Your task to perform on an android device: turn on priority inbox in the gmail app Image 0: 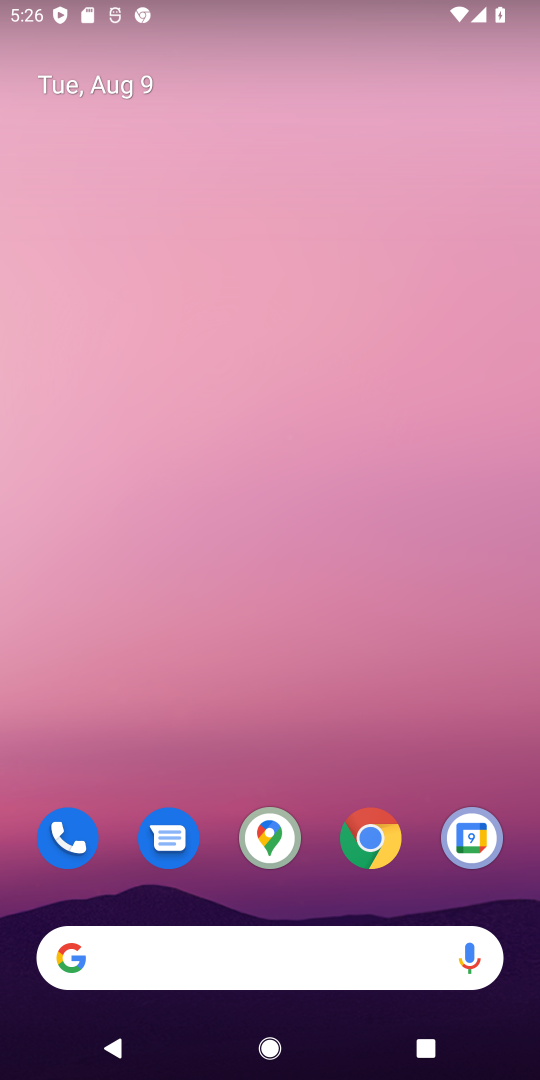
Step 0: drag from (321, 758) to (256, 120)
Your task to perform on an android device: turn on priority inbox in the gmail app Image 1: 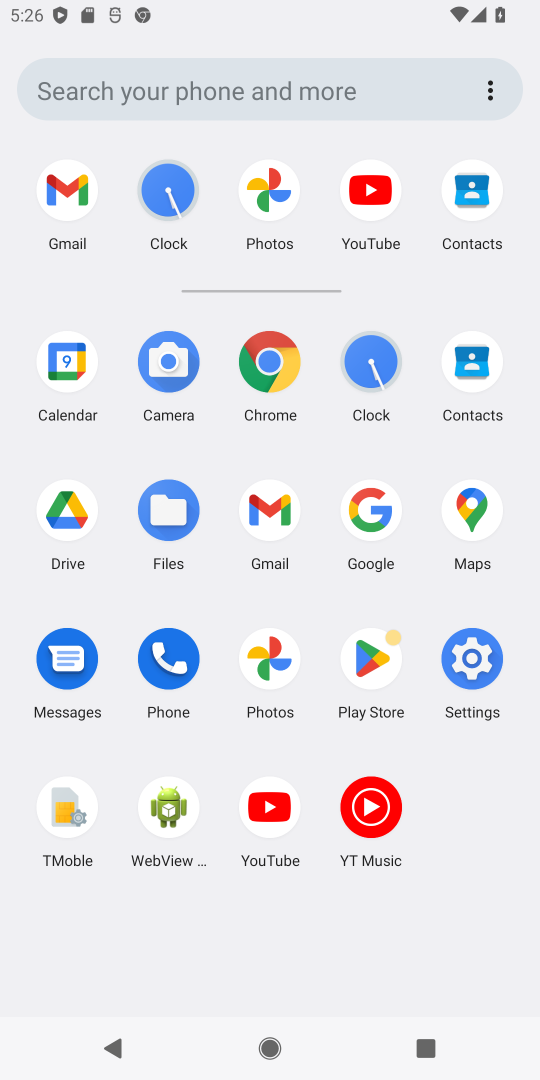
Step 1: click (68, 206)
Your task to perform on an android device: turn on priority inbox in the gmail app Image 2: 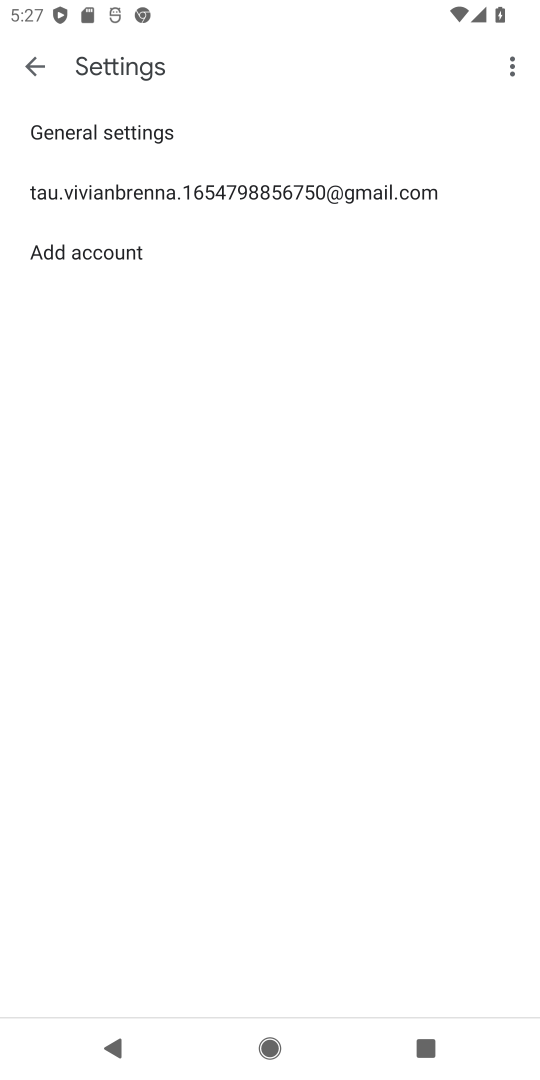
Step 2: click (206, 200)
Your task to perform on an android device: turn on priority inbox in the gmail app Image 3: 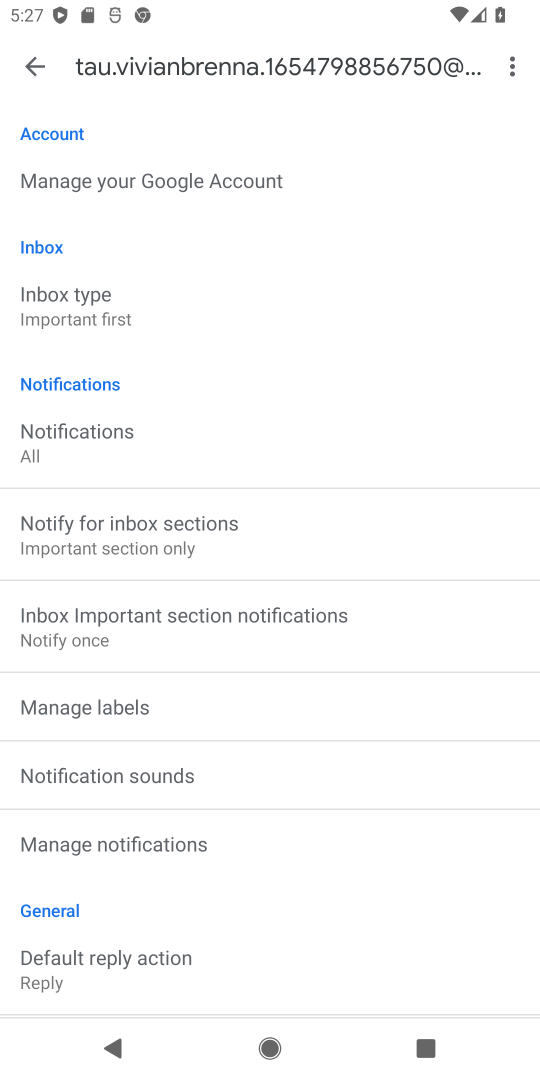
Step 3: drag from (275, 904) to (265, 1030)
Your task to perform on an android device: turn on priority inbox in the gmail app Image 4: 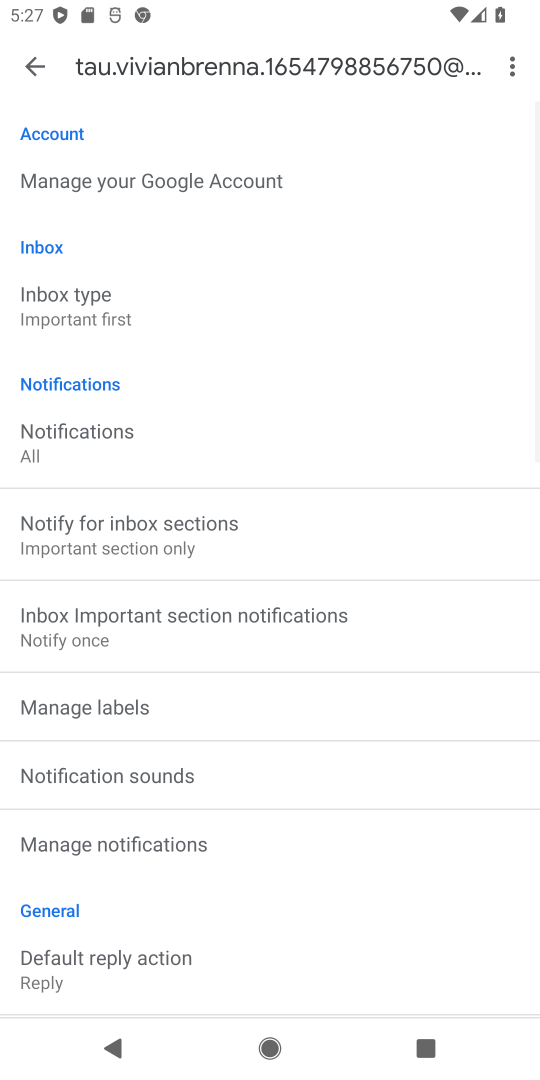
Step 4: click (215, 314)
Your task to perform on an android device: turn on priority inbox in the gmail app Image 5: 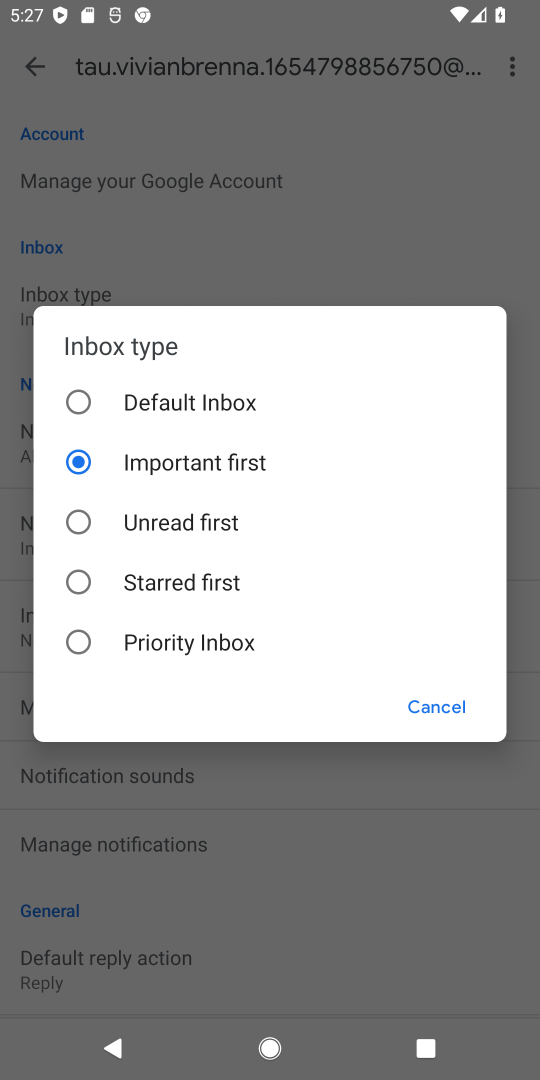
Step 5: click (236, 644)
Your task to perform on an android device: turn on priority inbox in the gmail app Image 6: 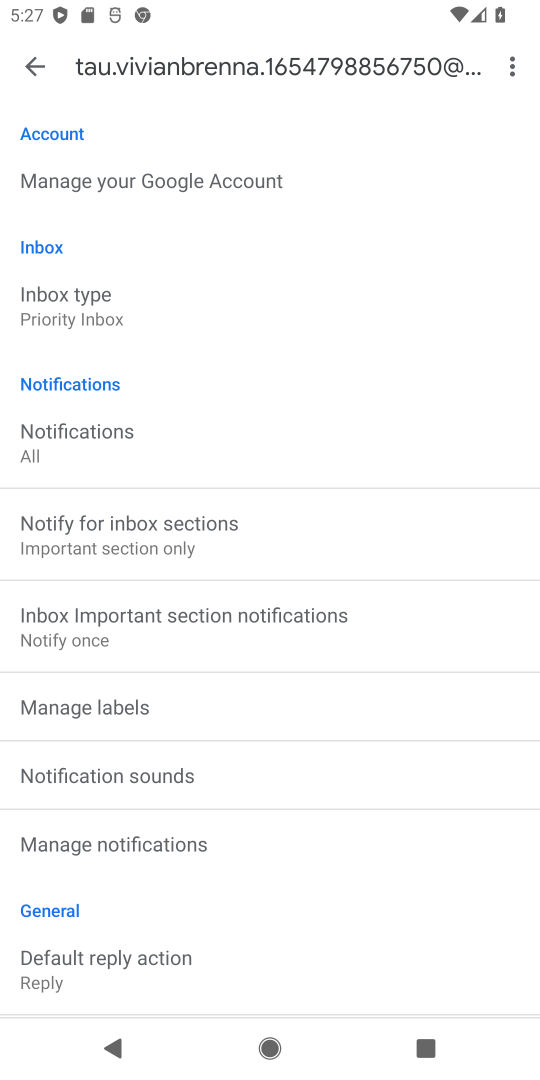
Step 6: task complete